Your task to perform on an android device: Go to Google Image 0: 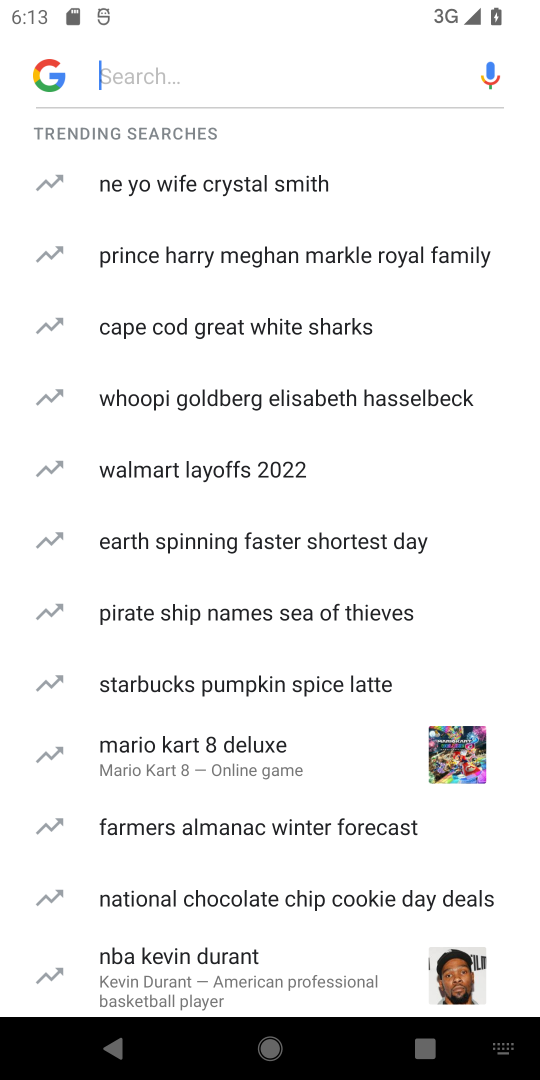
Step 0: press home button
Your task to perform on an android device: Go to Google Image 1: 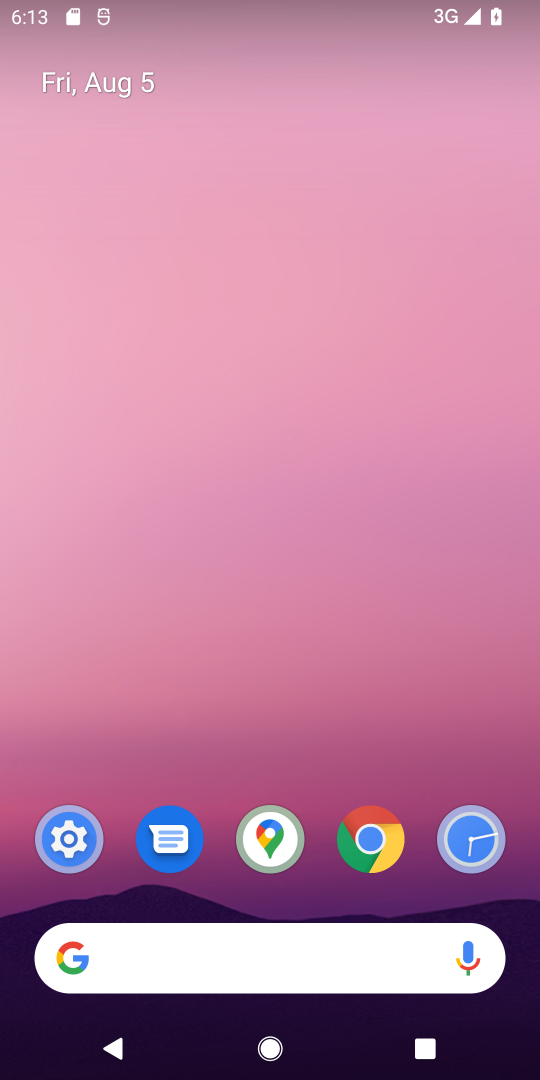
Step 1: drag from (261, 731) to (197, 169)
Your task to perform on an android device: Go to Google Image 2: 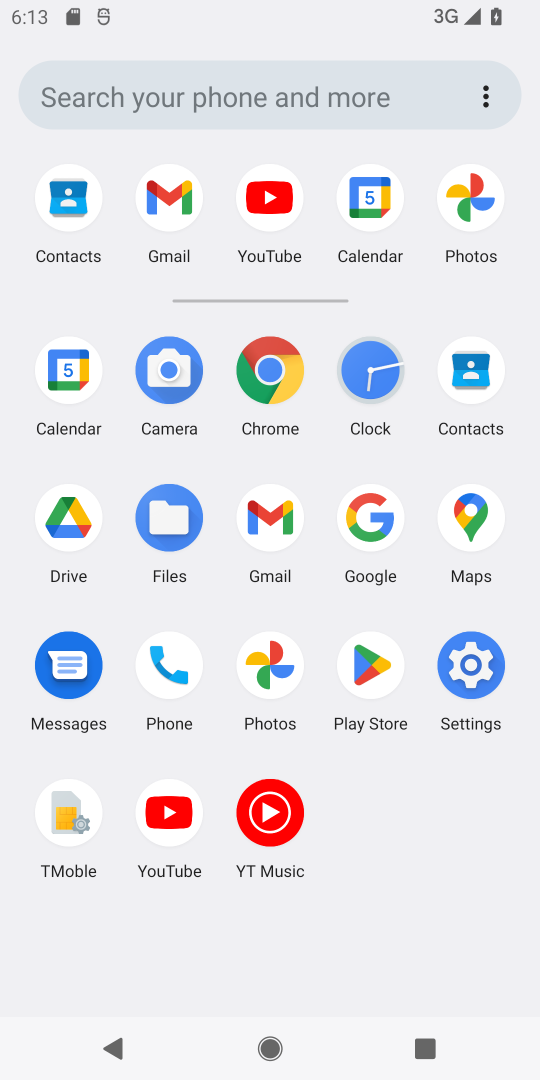
Step 2: click (361, 534)
Your task to perform on an android device: Go to Google Image 3: 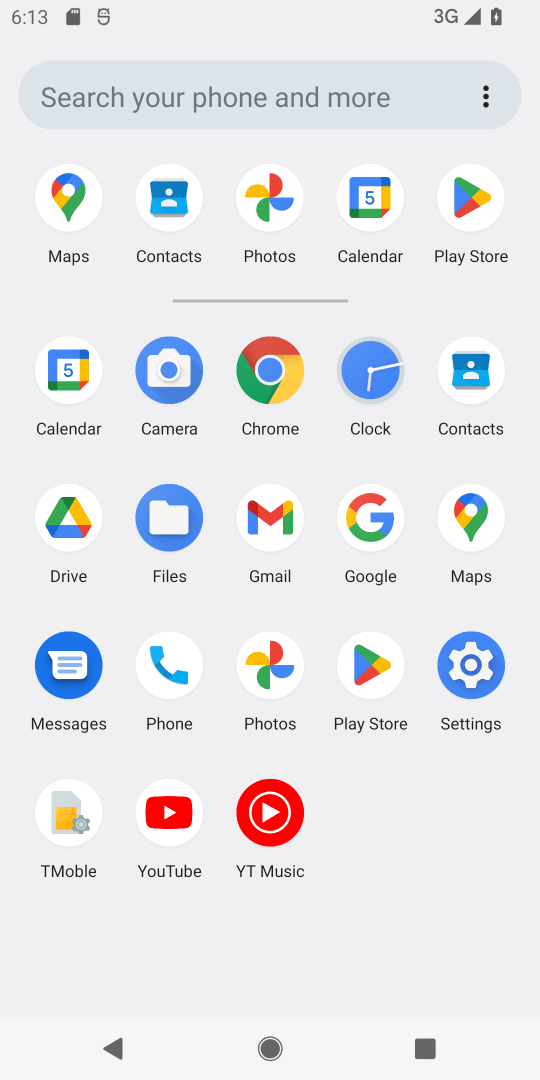
Step 3: click (350, 532)
Your task to perform on an android device: Go to Google Image 4: 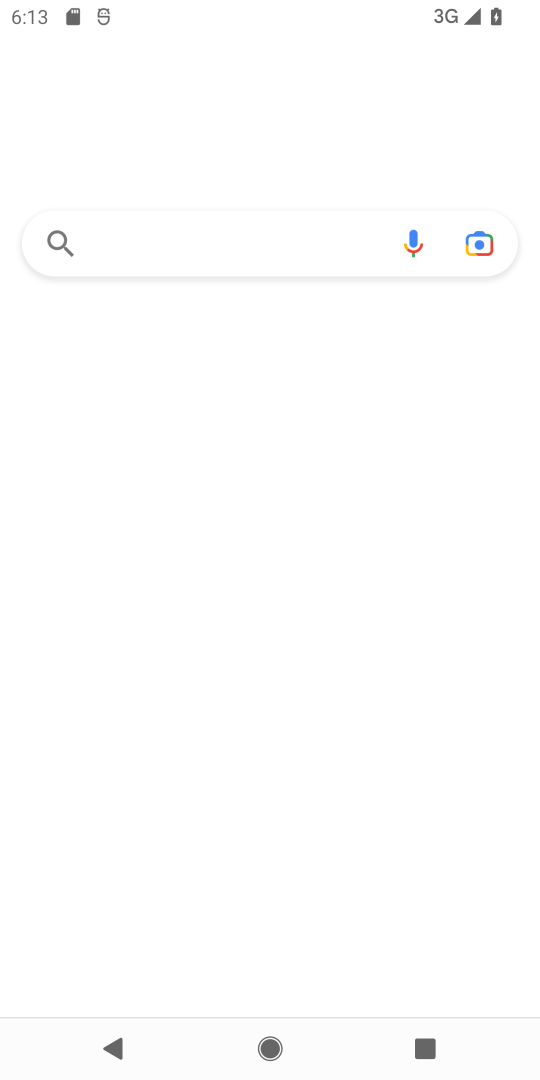
Step 4: task complete